Your task to perform on an android device: see tabs open on other devices in the chrome app Image 0: 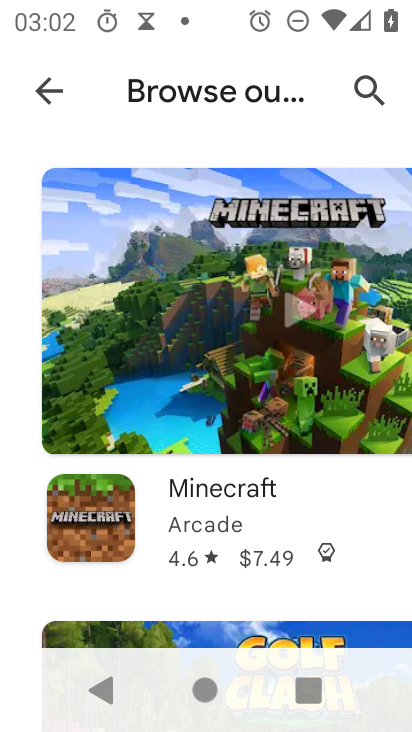
Step 0: press home button
Your task to perform on an android device: see tabs open on other devices in the chrome app Image 1: 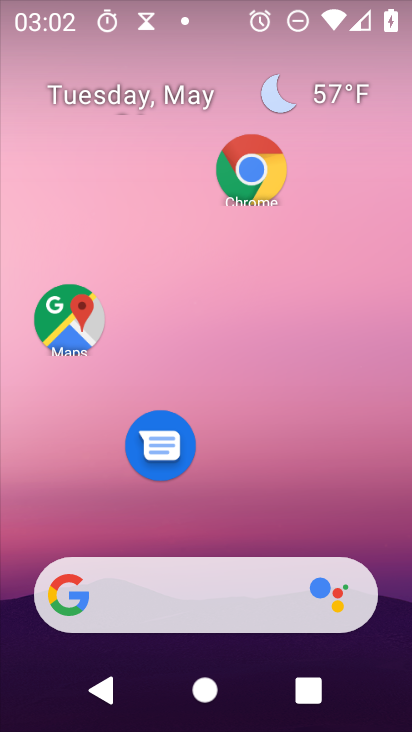
Step 1: click (258, 169)
Your task to perform on an android device: see tabs open on other devices in the chrome app Image 2: 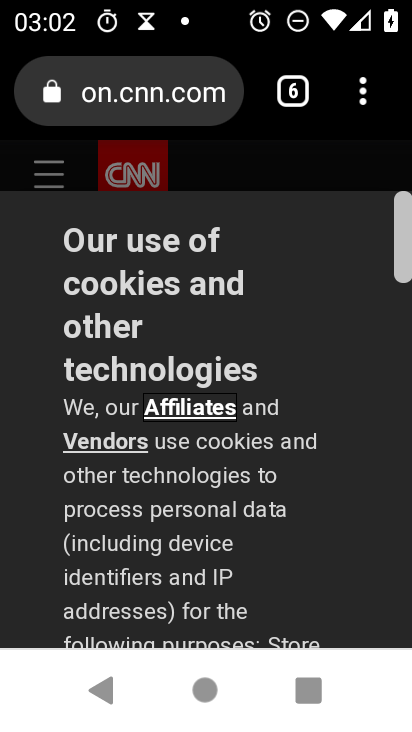
Step 2: click (366, 103)
Your task to perform on an android device: see tabs open on other devices in the chrome app Image 3: 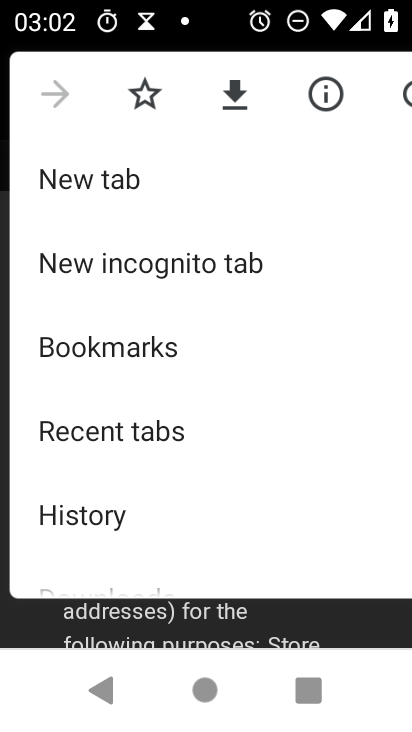
Step 3: drag from (87, 525) to (93, 178)
Your task to perform on an android device: see tabs open on other devices in the chrome app Image 4: 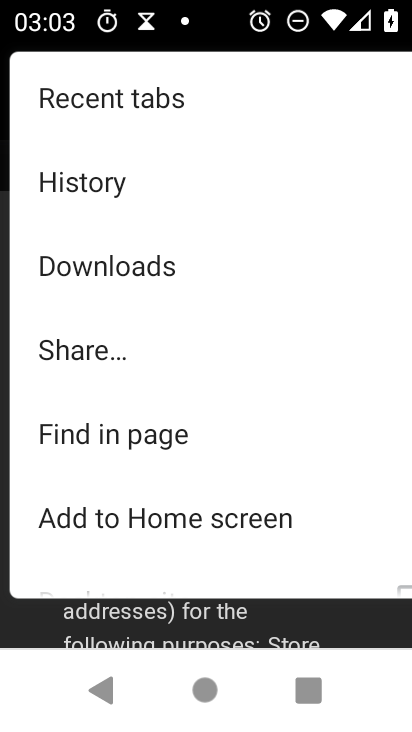
Step 4: click (149, 96)
Your task to perform on an android device: see tabs open on other devices in the chrome app Image 5: 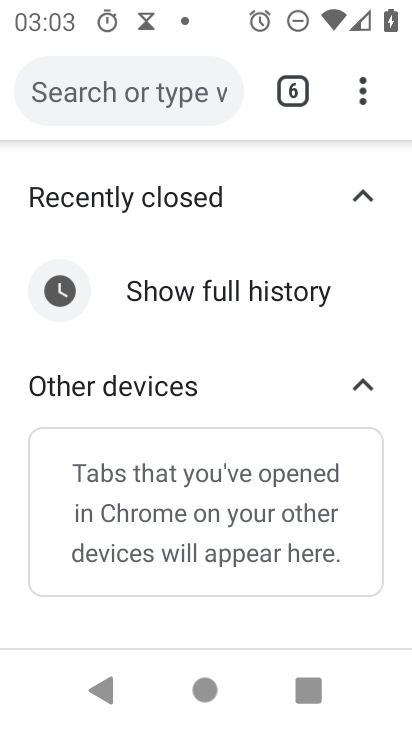
Step 5: task complete